Your task to perform on an android device: turn off improve location accuracy Image 0: 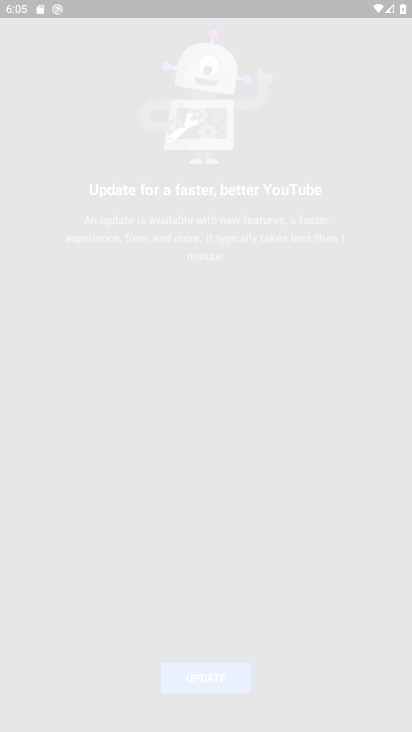
Step 0: drag from (236, 591) to (204, 26)
Your task to perform on an android device: turn off improve location accuracy Image 1: 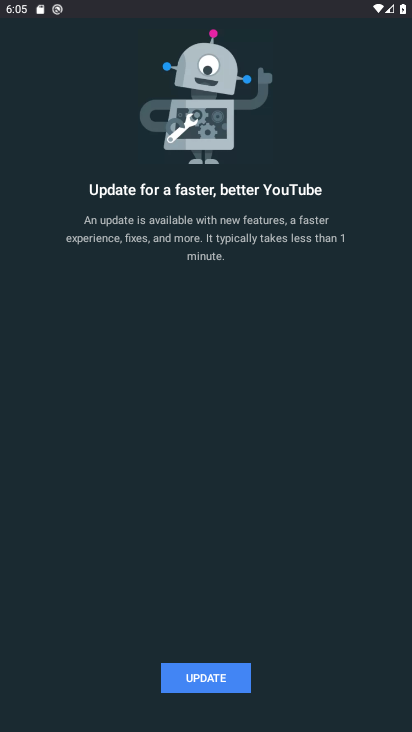
Step 1: press home button
Your task to perform on an android device: turn off improve location accuracy Image 2: 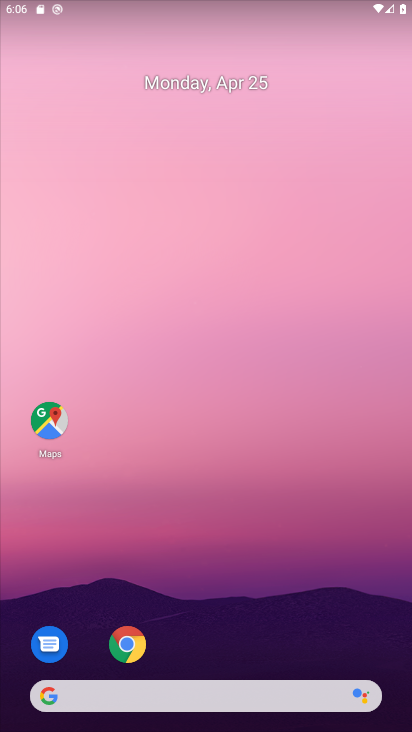
Step 2: click (265, 52)
Your task to perform on an android device: turn off improve location accuracy Image 3: 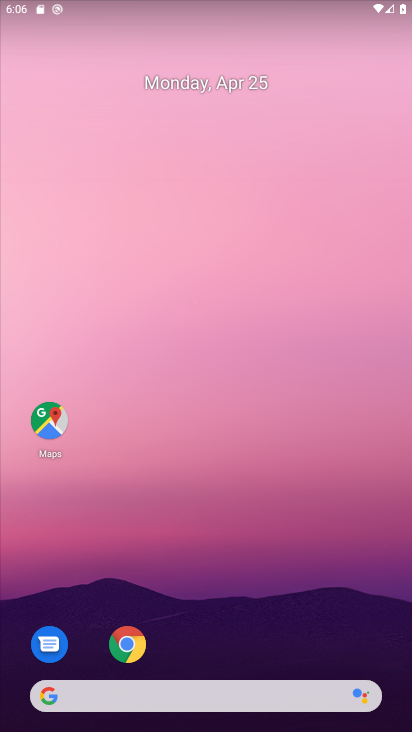
Step 3: drag from (240, 625) to (231, 73)
Your task to perform on an android device: turn off improve location accuracy Image 4: 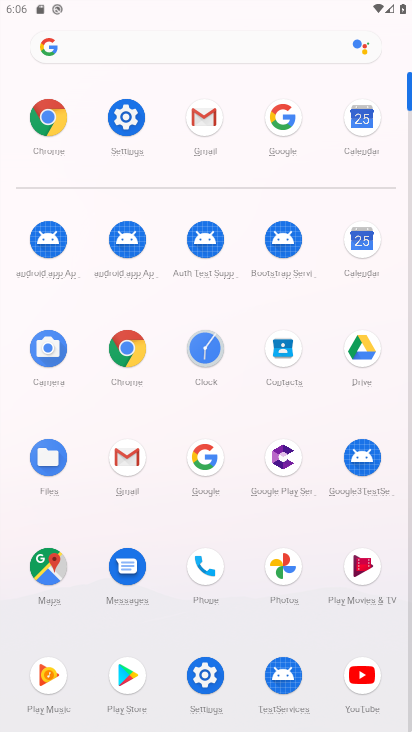
Step 4: click (119, 123)
Your task to perform on an android device: turn off improve location accuracy Image 5: 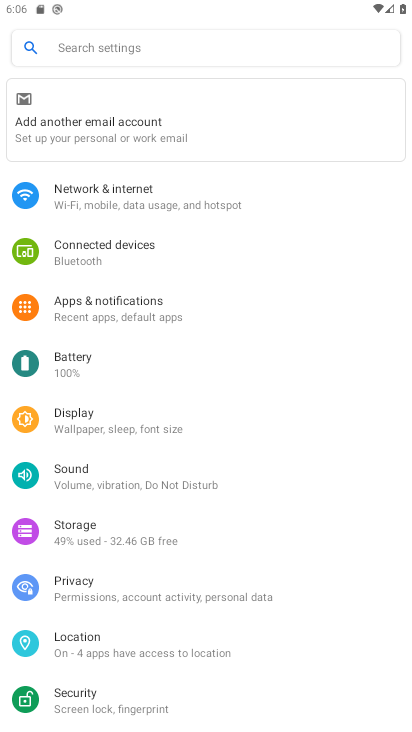
Step 5: click (115, 634)
Your task to perform on an android device: turn off improve location accuracy Image 6: 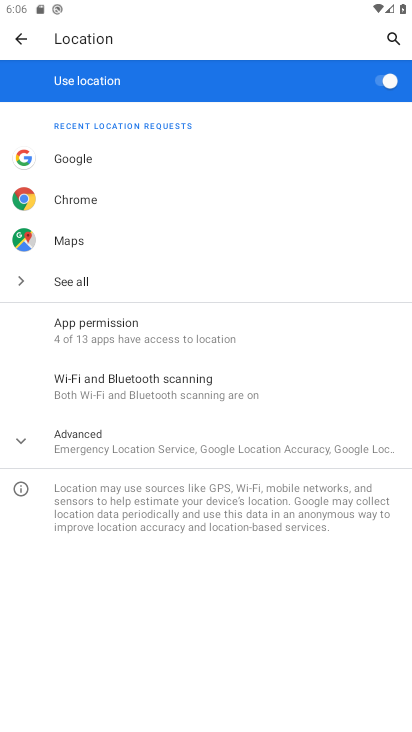
Step 6: click (162, 440)
Your task to perform on an android device: turn off improve location accuracy Image 7: 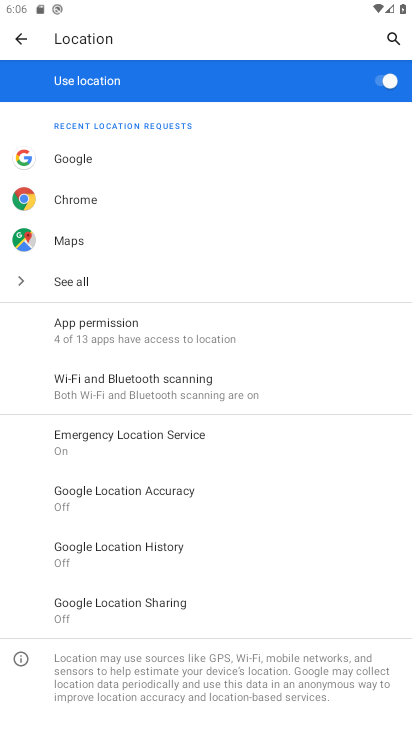
Step 7: click (155, 492)
Your task to perform on an android device: turn off improve location accuracy Image 8: 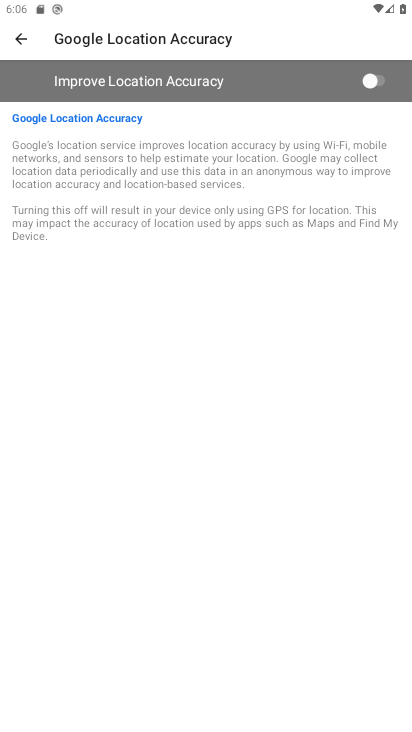
Step 8: task complete